Your task to perform on an android device: turn off sleep mode Image 0: 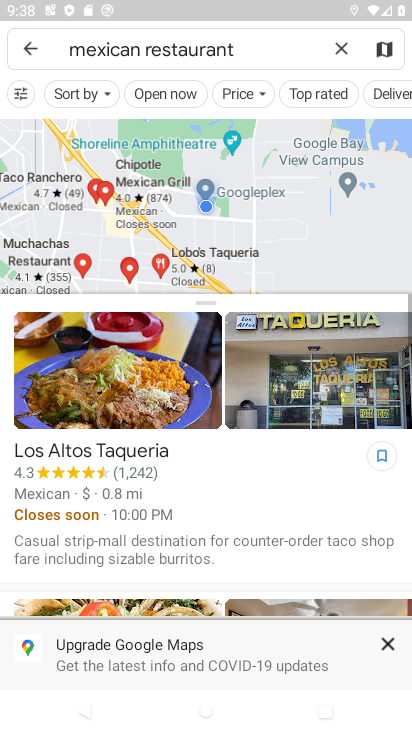
Step 0: press home button
Your task to perform on an android device: turn off sleep mode Image 1: 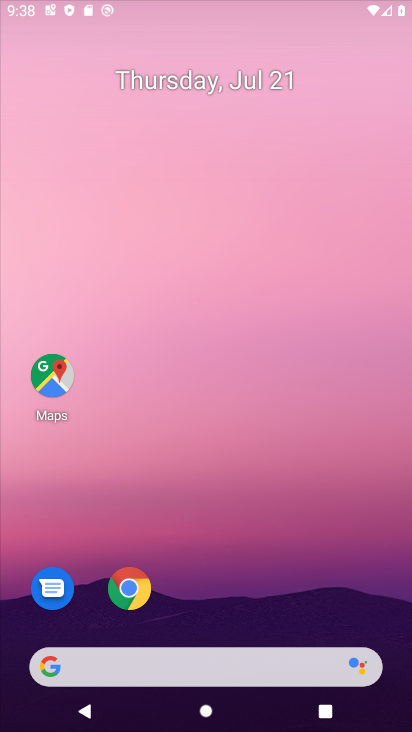
Step 1: drag from (208, 602) to (233, 11)
Your task to perform on an android device: turn off sleep mode Image 2: 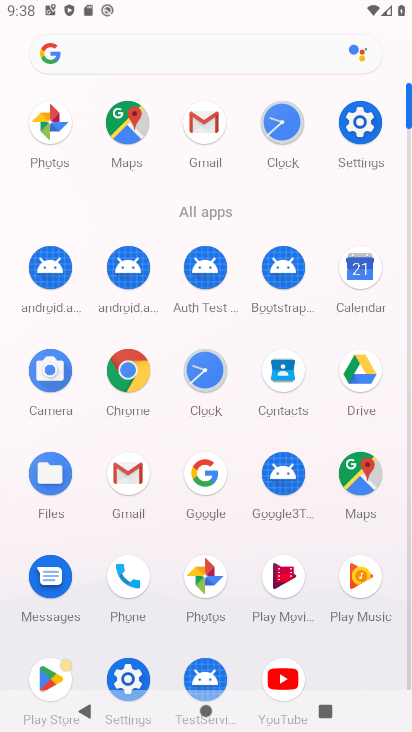
Step 2: click (358, 126)
Your task to perform on an android device: turn off sleep mode Image 3: 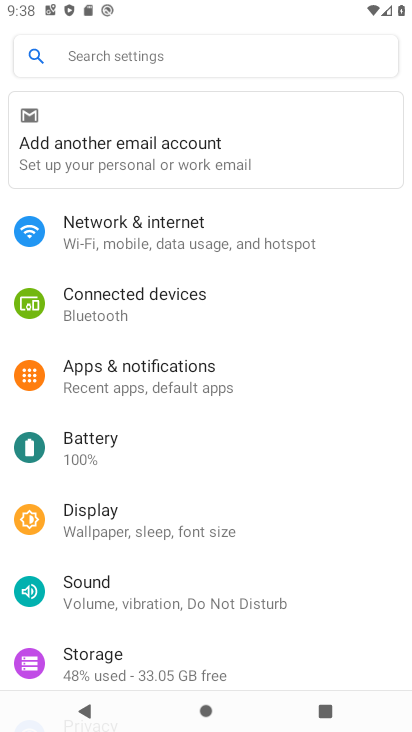
Step 3: click (143, 527)
Your task to perform on an android device: turn off sleep mode Image 4: 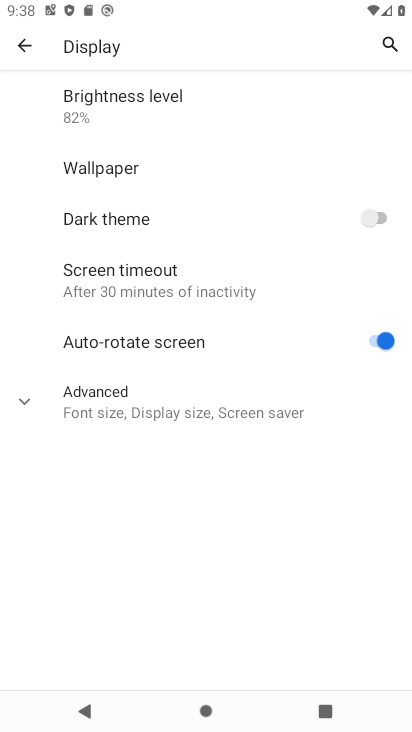
Step 4: click (111, 270)
Your task to perform on an android device: turn off sleep mode Image 5: 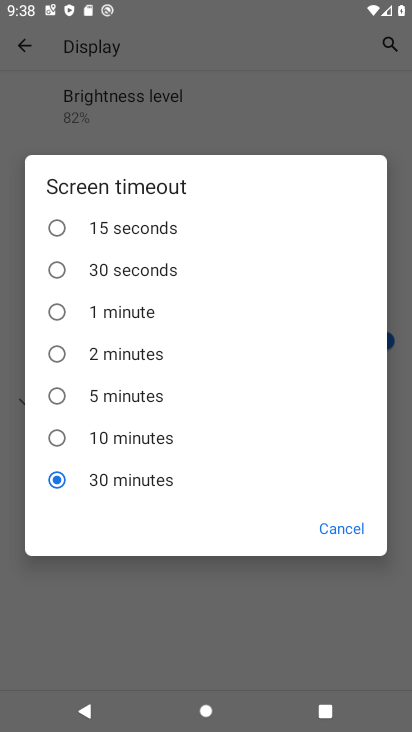
Step 5: task complete